Your task to perform on an android device: toggle notification dots Image 0: 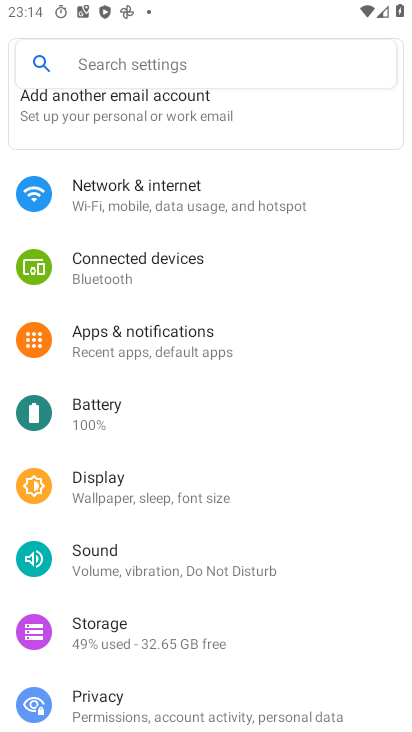
Step 0: click (145, 326)
Your task to perform on an android device: toggle notification dots Image 1: 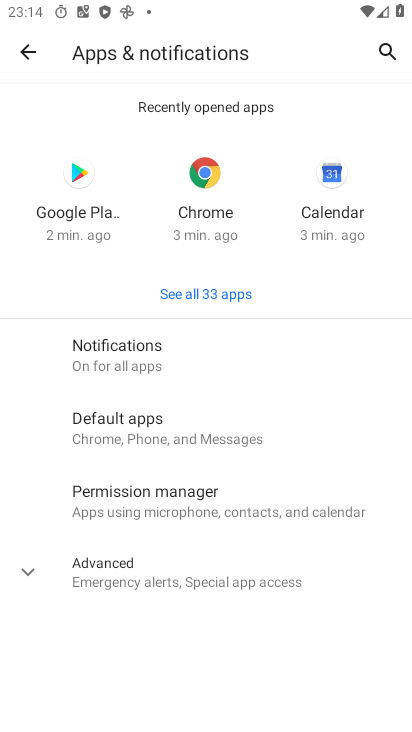
Step 1: click (163, 353)
Your task to perform on an android device: toggle notification dots Image 2: 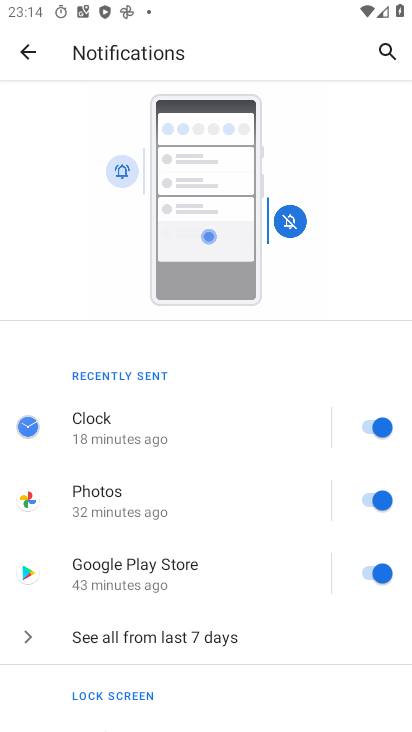
Step 2: click (154, 637)
Your task to perform on an android device: toggle notification dots Image 3: 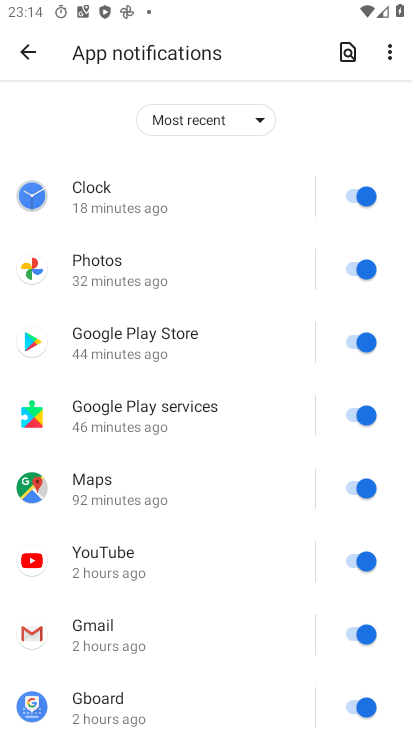
Step 3: drag from (267, 613) to (299, 22)
Your task to perform on an android device: toggle notification dots Image 4: 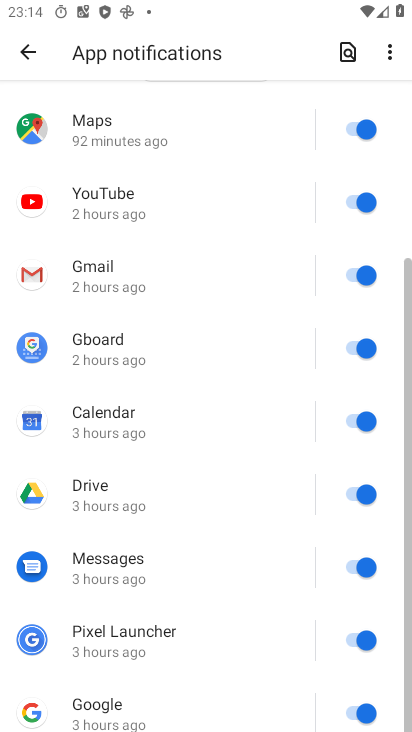
Step 4: drag from (258, 585) to (278, 231)
Your task to perform on an android device: toggle notification dots Image 5: 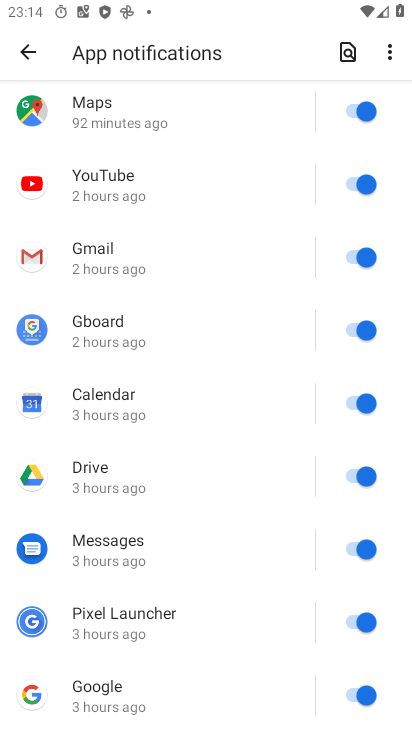
Step 5: press back button
Your task to perform on an android device: toggle notification dots Image 6: 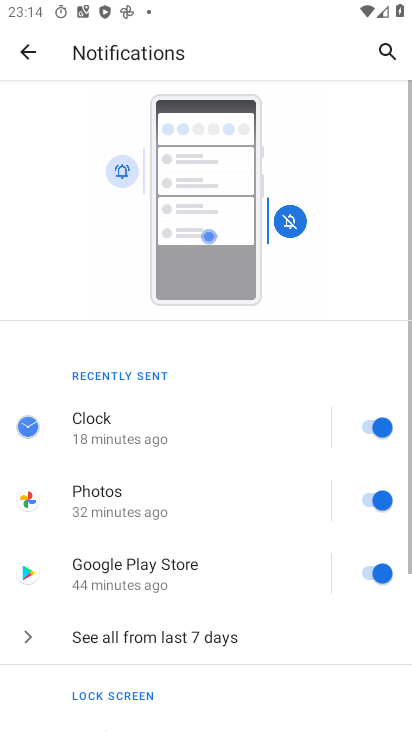
Step 6: drag from (260, 646) to (312, 149)
Your task to perform on an android device: toggle notification dots Image 7: 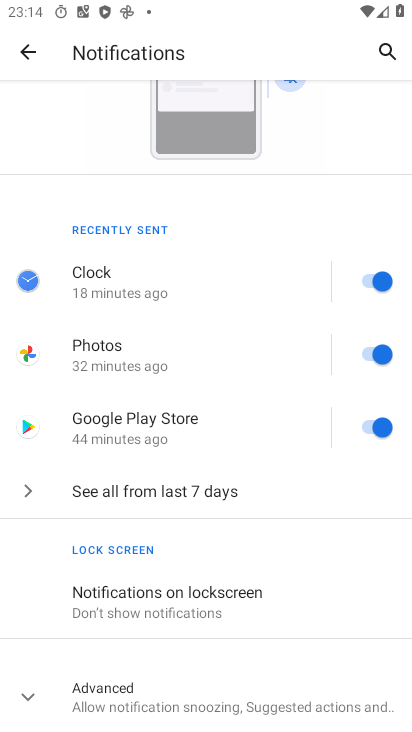
Step 7: click (158, 699)
Your task to perform on an android device: toggle notification dots Image 8: 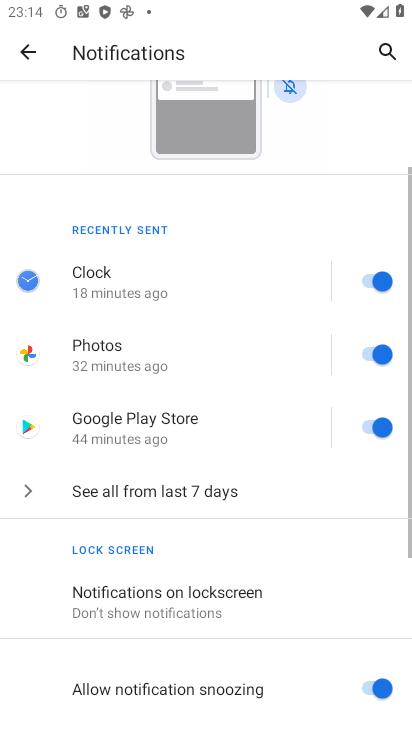
Step 8: drag from (290, 644) to (288, 177)
Your task to perform on an android device: toggle notification dots Image 9: 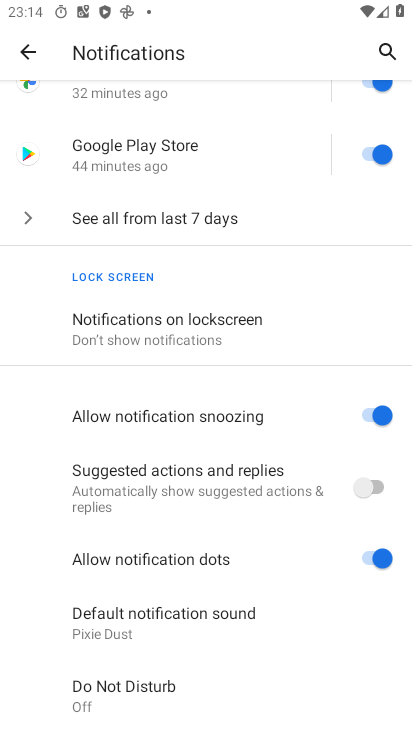
Step 9: click (380, 561)
Your task to perform on an android device: toggle notification dots Image 10: 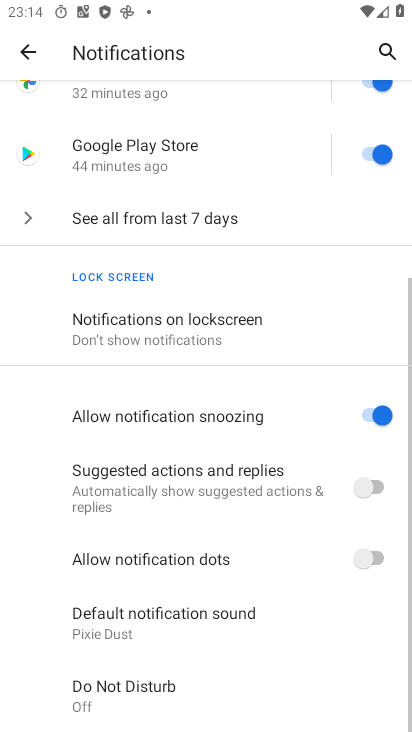
Step 10: task complete